Your task to perform on an android device: Go to Google Image 0: 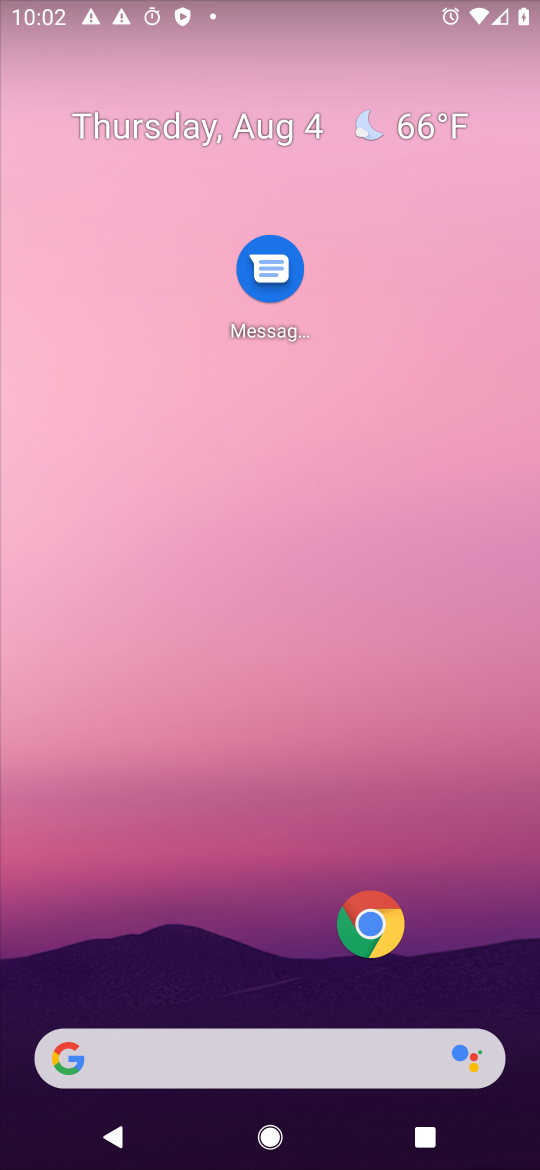
Step 0: drag from (336, 433) to (360, 249)
Your task to perform on an android device: Go to Google Image 1: 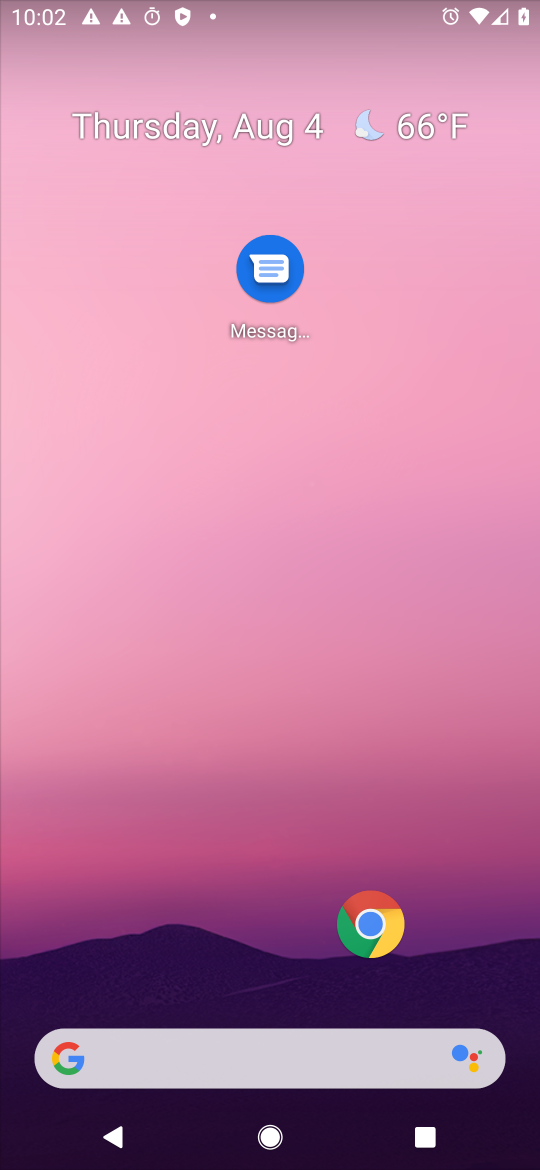
Step 1: drag from (277, 955) to (232, 178)
Your task to perform on an android device: Go to Google Image 2: 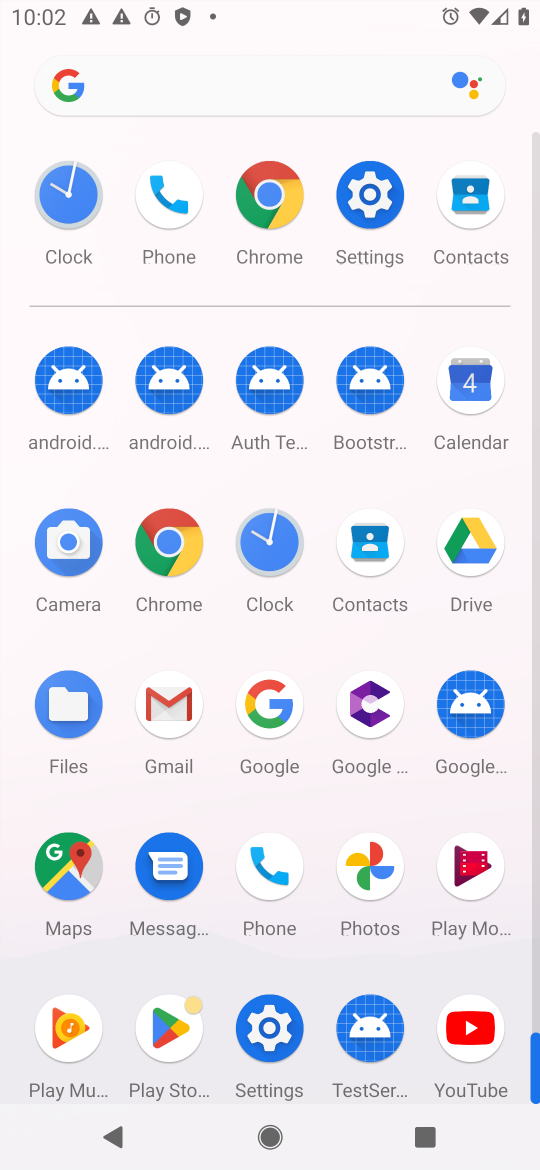
Step 2: click (258, 719)
Your task to perform on an android device: Go to Google Image 3: 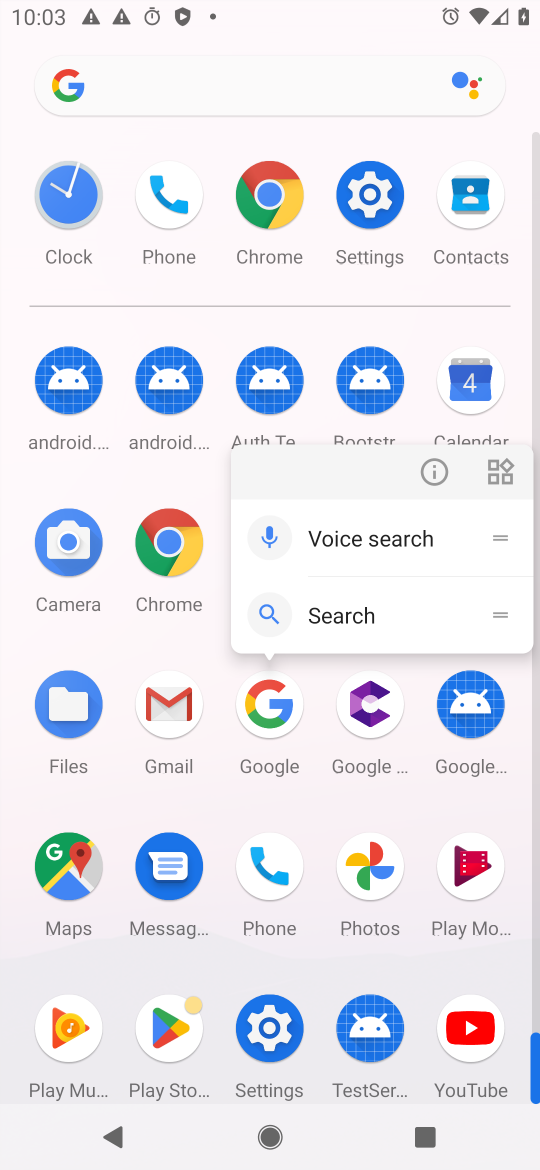
Step 3: click (431, 476)
Your task to perform on an android device: Go to Google Image 4: 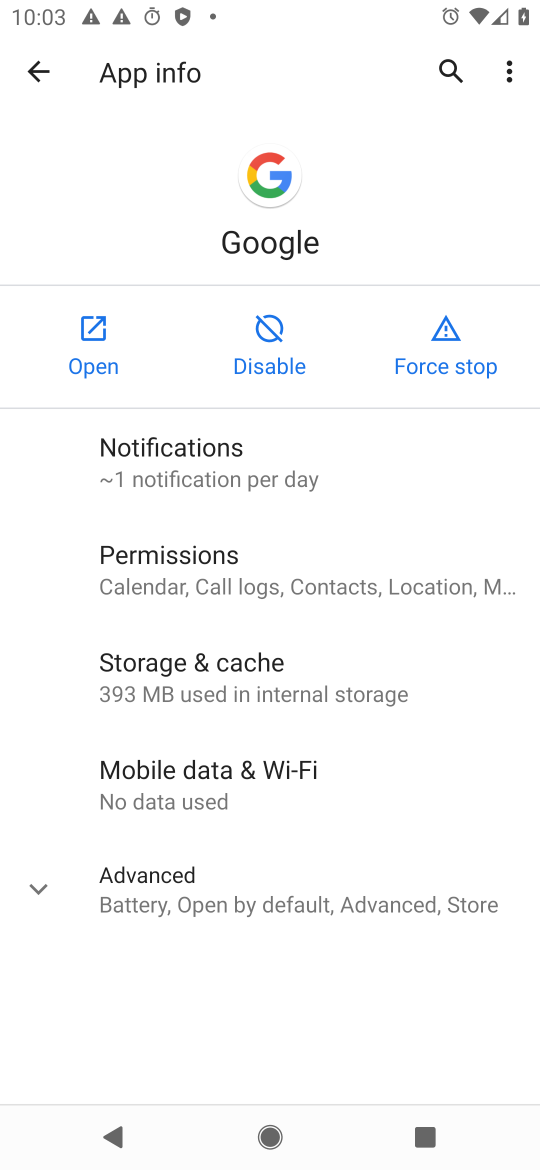
Step 4: click (106, 328)
Your task to perform on an android device: Go to Google Image 5: 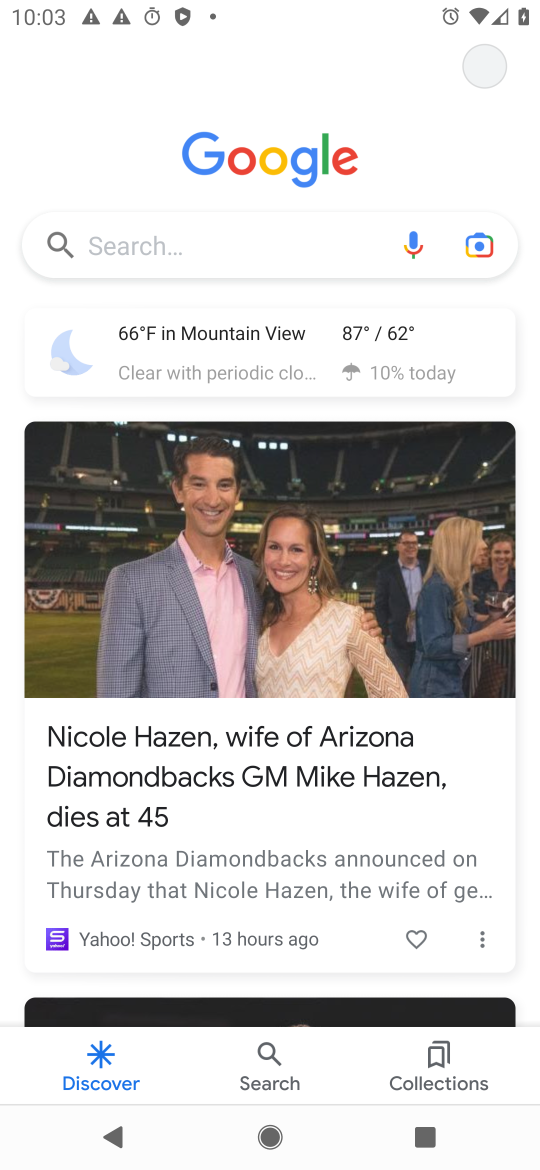
Step 5: task complete